Your task to perform on an android device: Open the calendar app, open the side menu, and click the "Day" option Image 0: 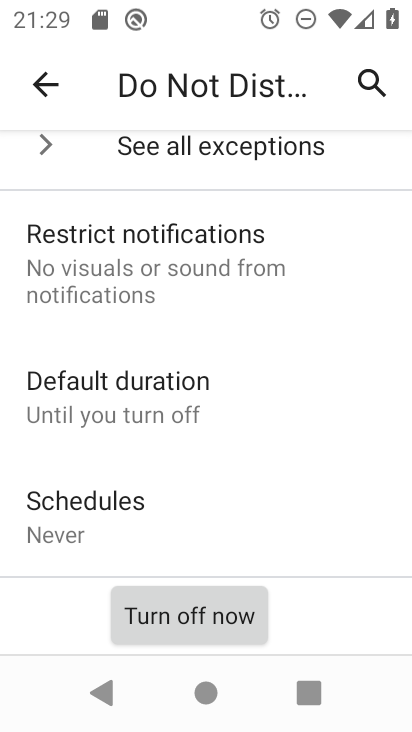
Step 0: press home button
Your task to perform on an android device: Open the calendar app, open the side menu, and click the "Day" option Image 1: 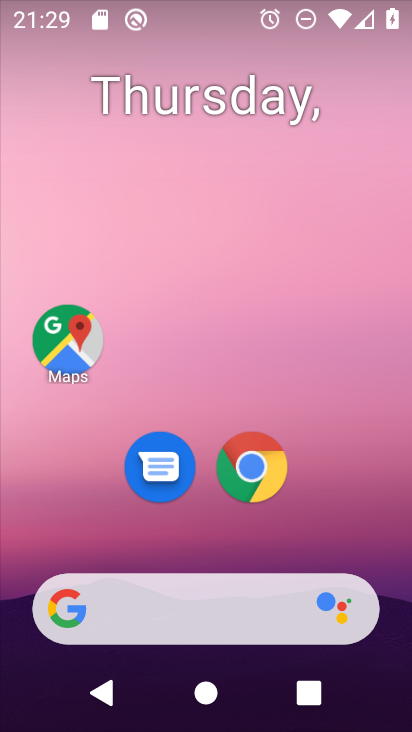
Step 1: drag from (300, 576) to (377, 138)
Your task to perform on an android device: Open the calendar app, open the side menu, and click the "Day" option Image 2: 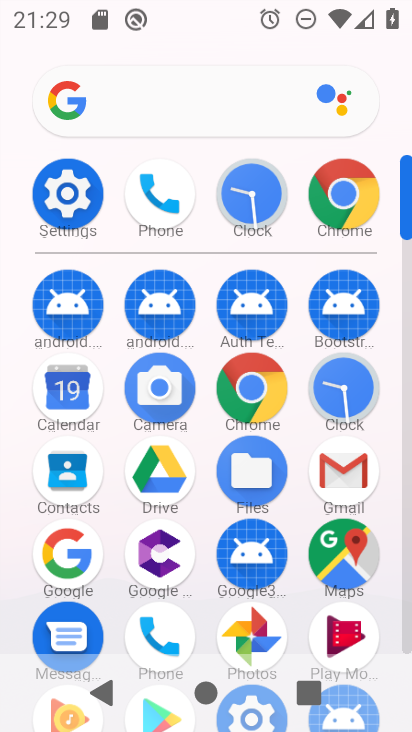
Step 2: click (56, 378)
Your task to perform on an android device: Open the calendar app, open the side menu, and click the "Day" option Image 3: 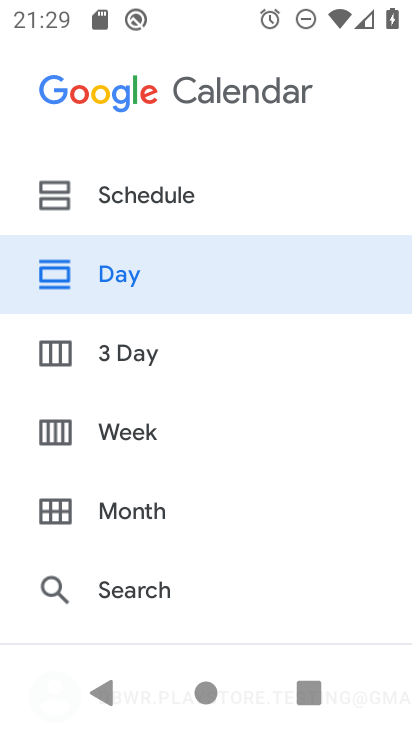
Step 3: click (79, 273)
Your task to perform on an android device: Open the calendar app, open the side menu, and click the "Day" option Image 4: 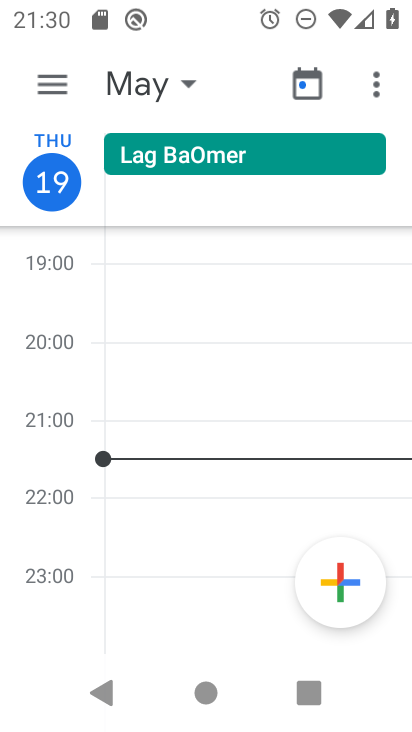
Step 4: task complete